Your task to perform on an android device: uninstall "Microsoft Excel" Image 0: 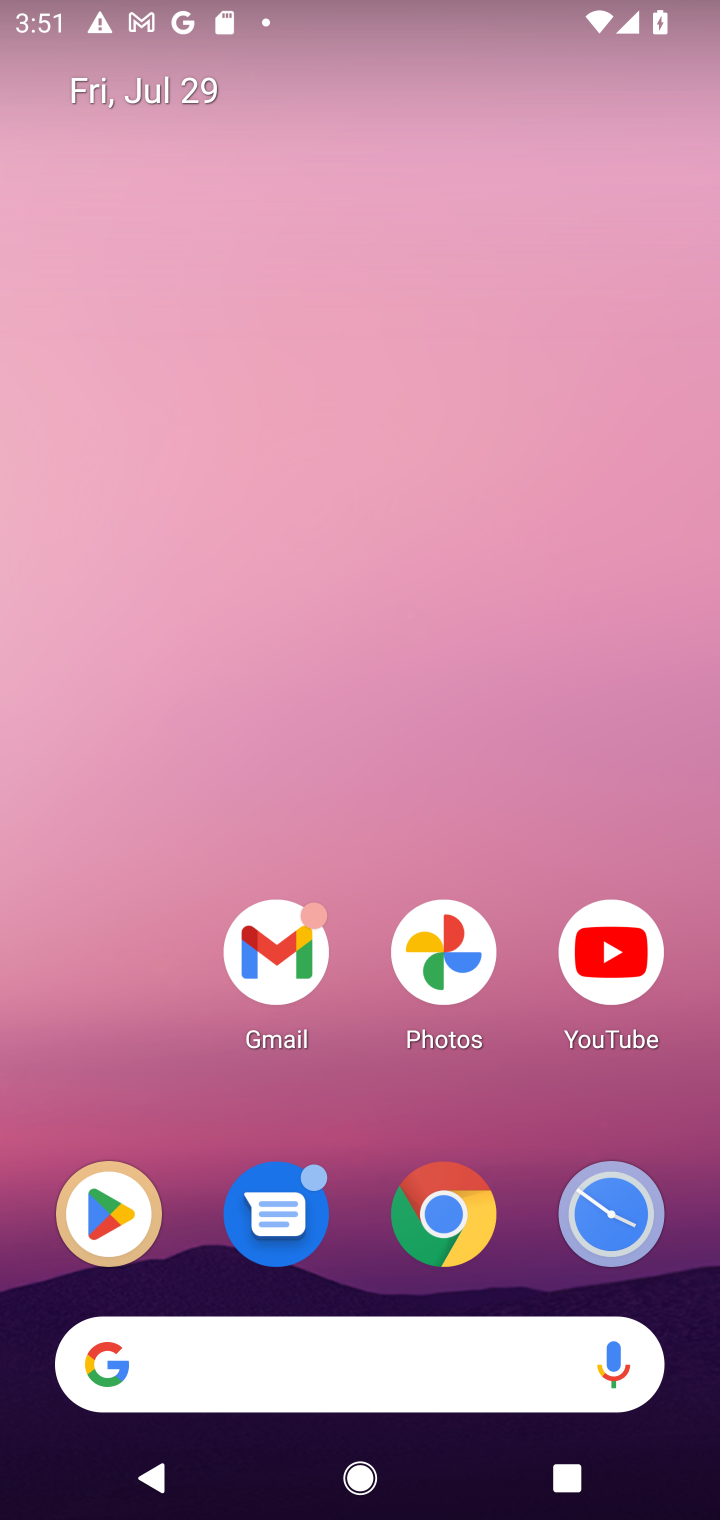
Step 0: click (92, 1217)
Your task to perform on an android device: uninstall "Microsoft Excel" Image 1: 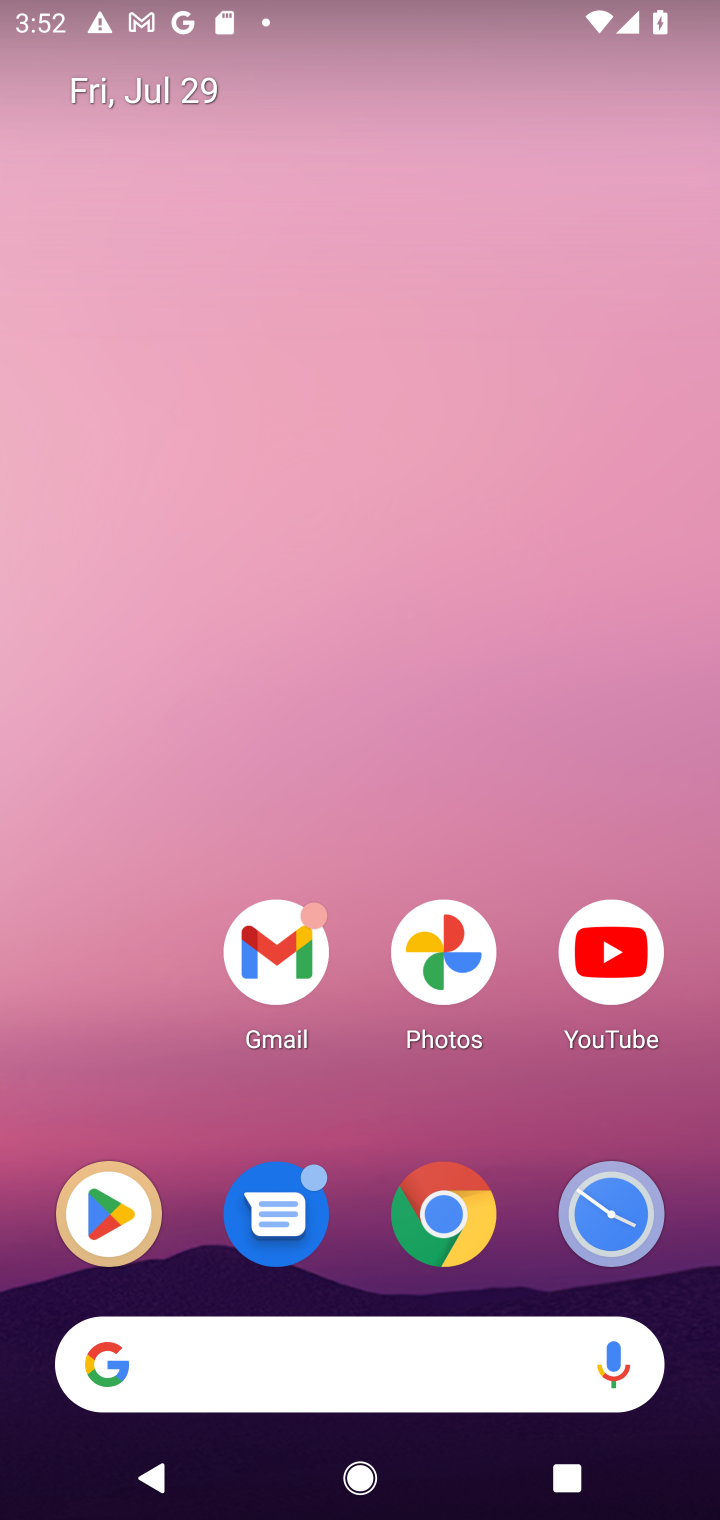
Step 1: click (118, 1200)
Your task to perform on an android device: uninstall "Microsoft Excel" Image 2: 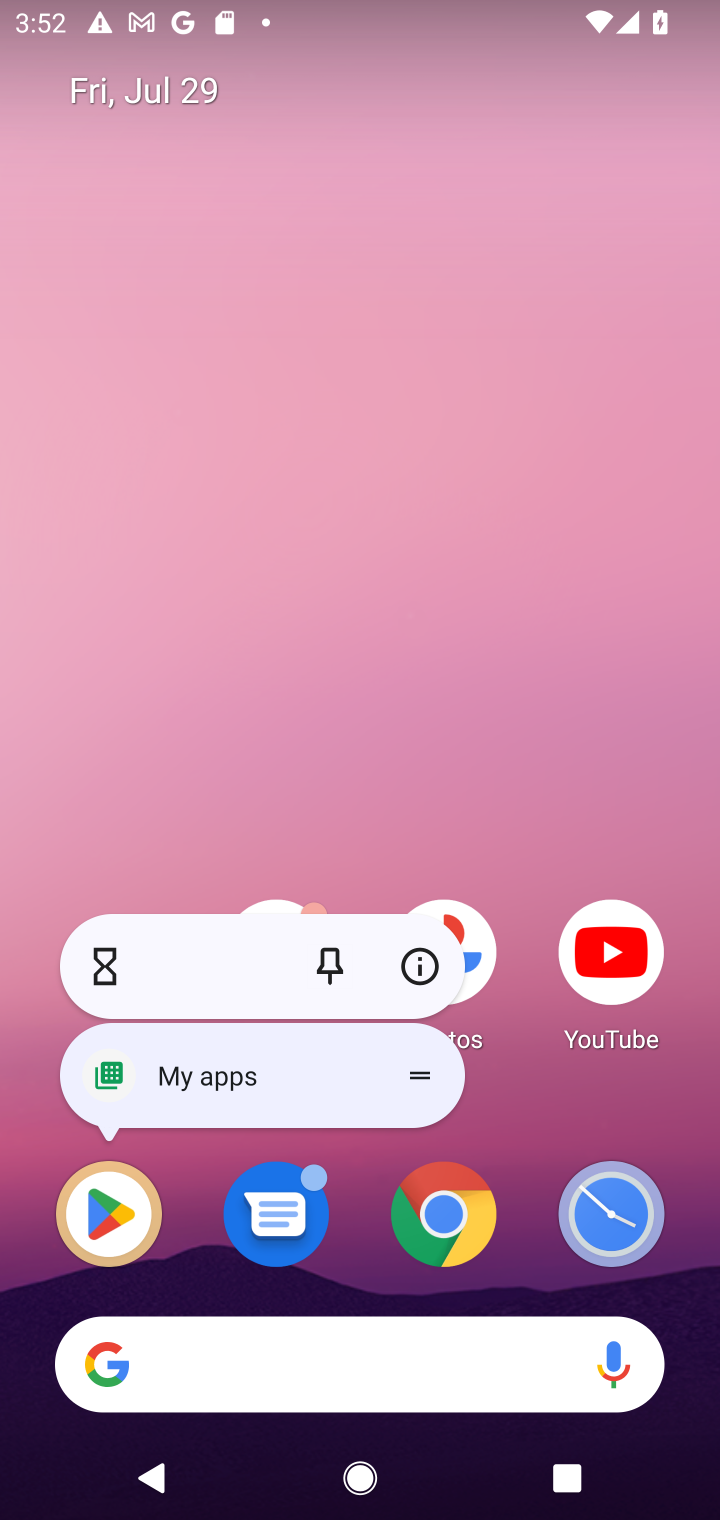
Step 2: click (133, 1214)
Your task to perform on an android device: uninstall "Microsoft Excel" Image 3: 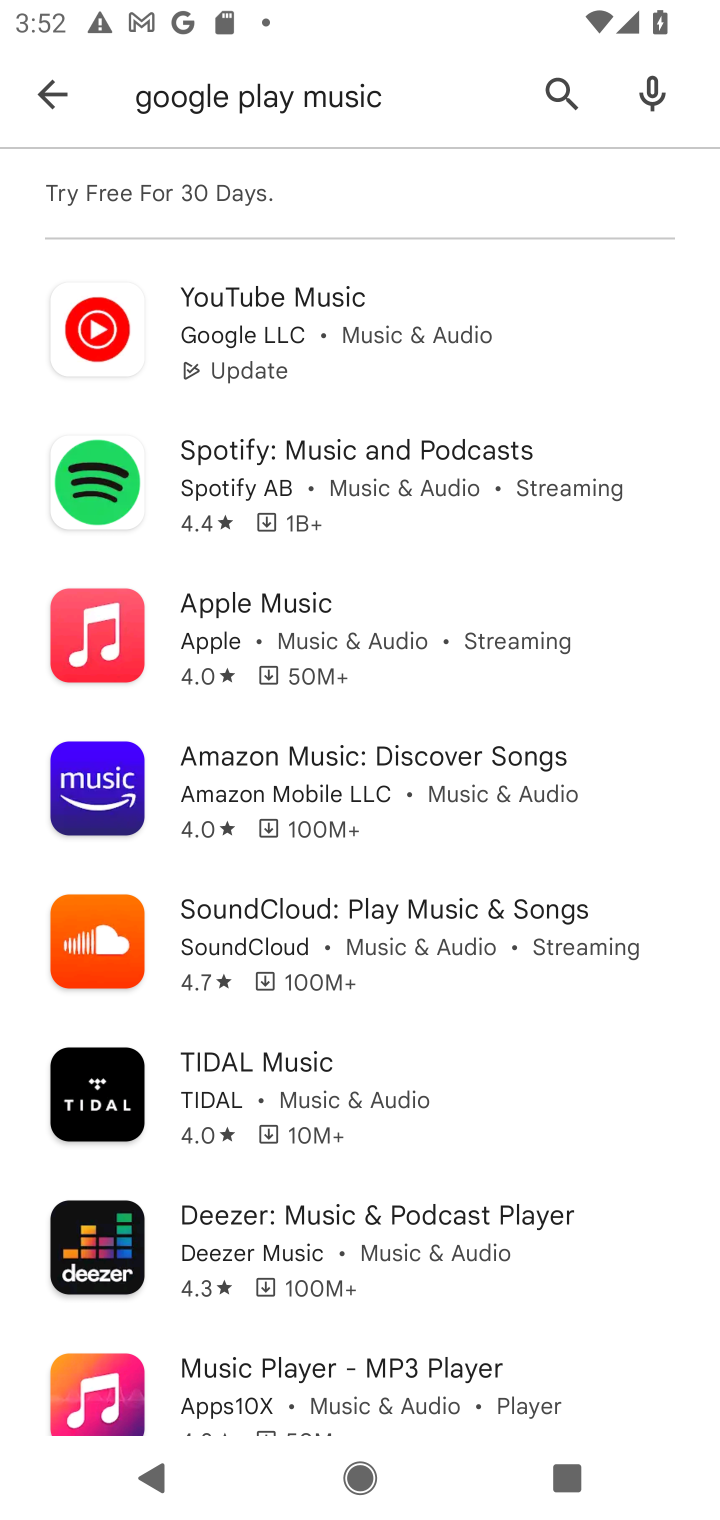
Step 3: click (335, 104)
Your task to perform on an android device: uninstall "Microsoft Excel" Image 4: 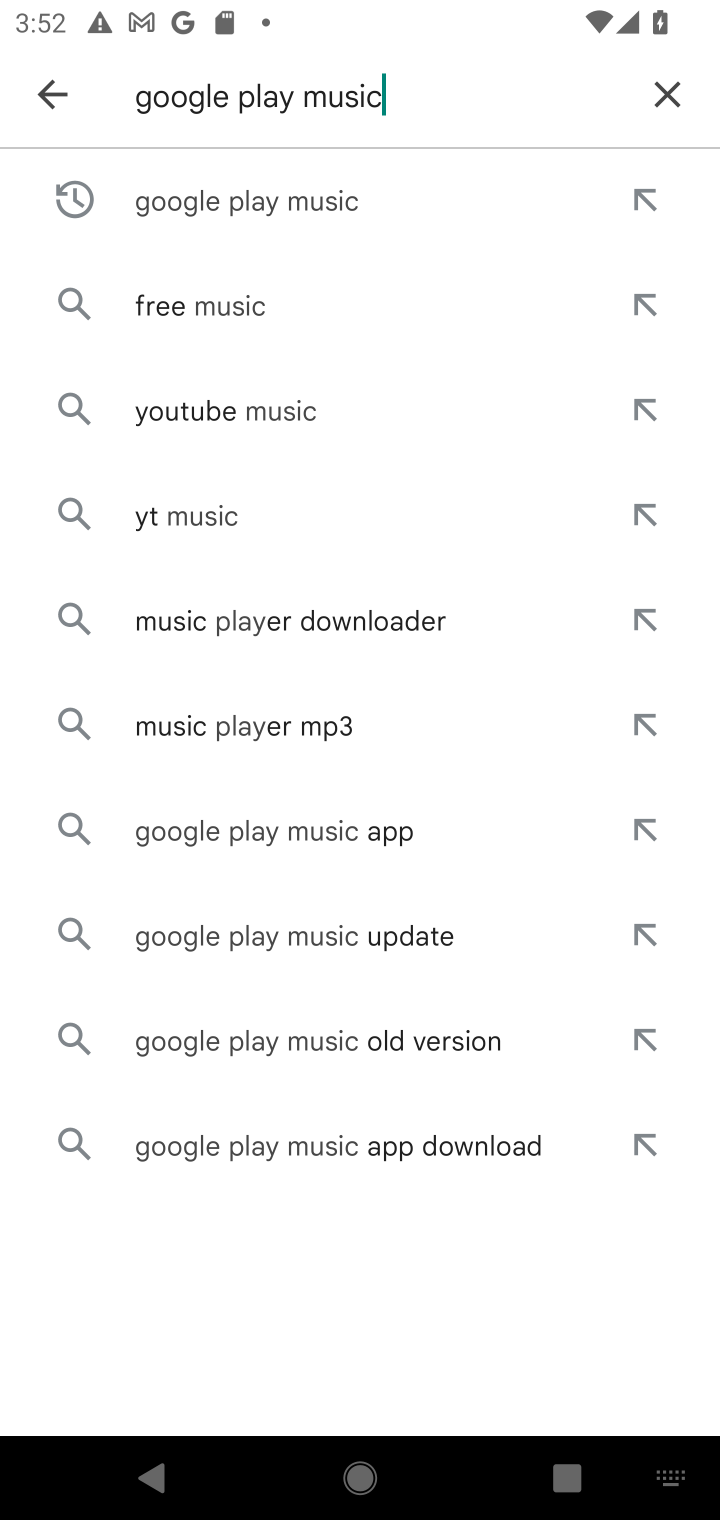
Step 4: click (668, 93)
Your task to perform on an android device: uninstall "Microsoft Excel" Image 5: 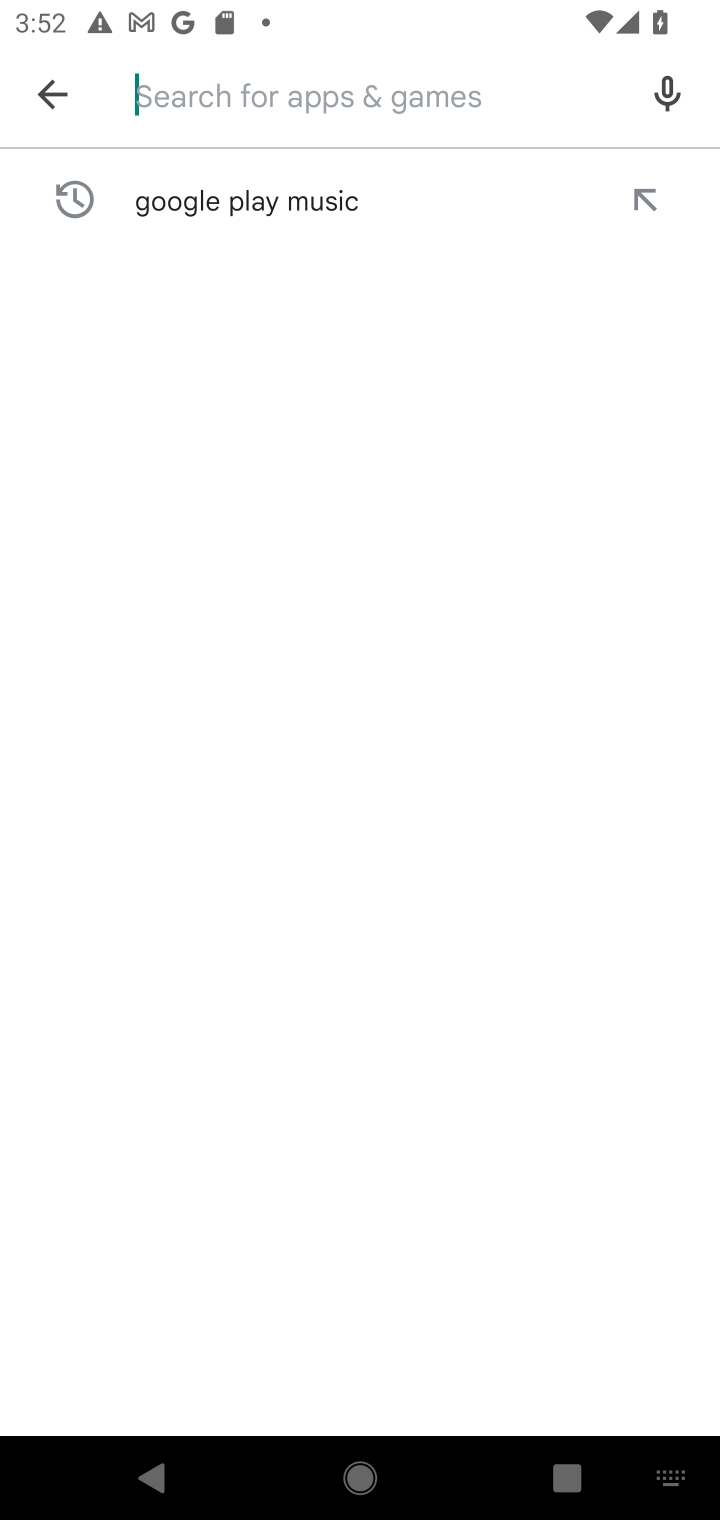
Step 5: type "Microsoft Excel"
Your task to perform on an android device: uninstall "Microsoft Excel" Image 6: 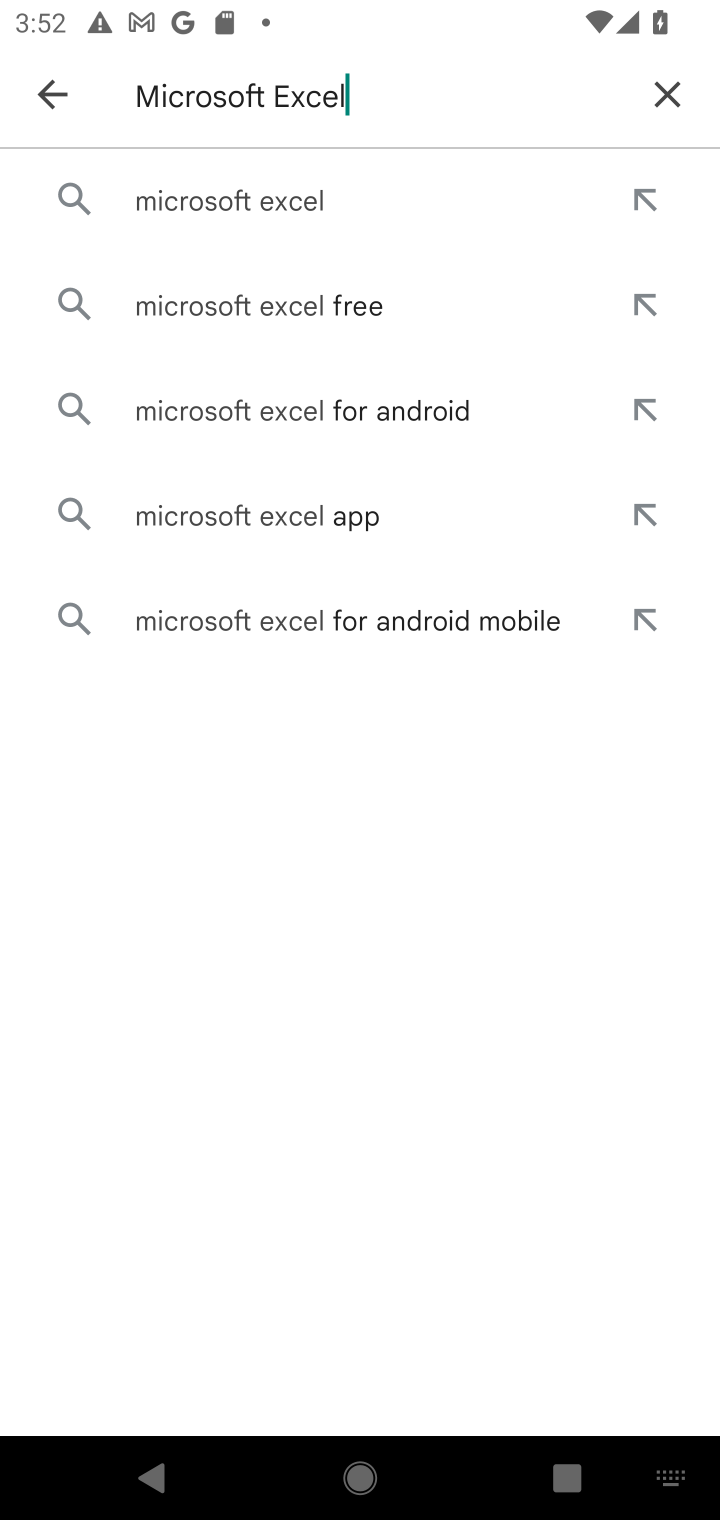
Step 6: click (316, 215)
Your task to perform on an android device: uninstall "Microsoft Excel" Image 7: 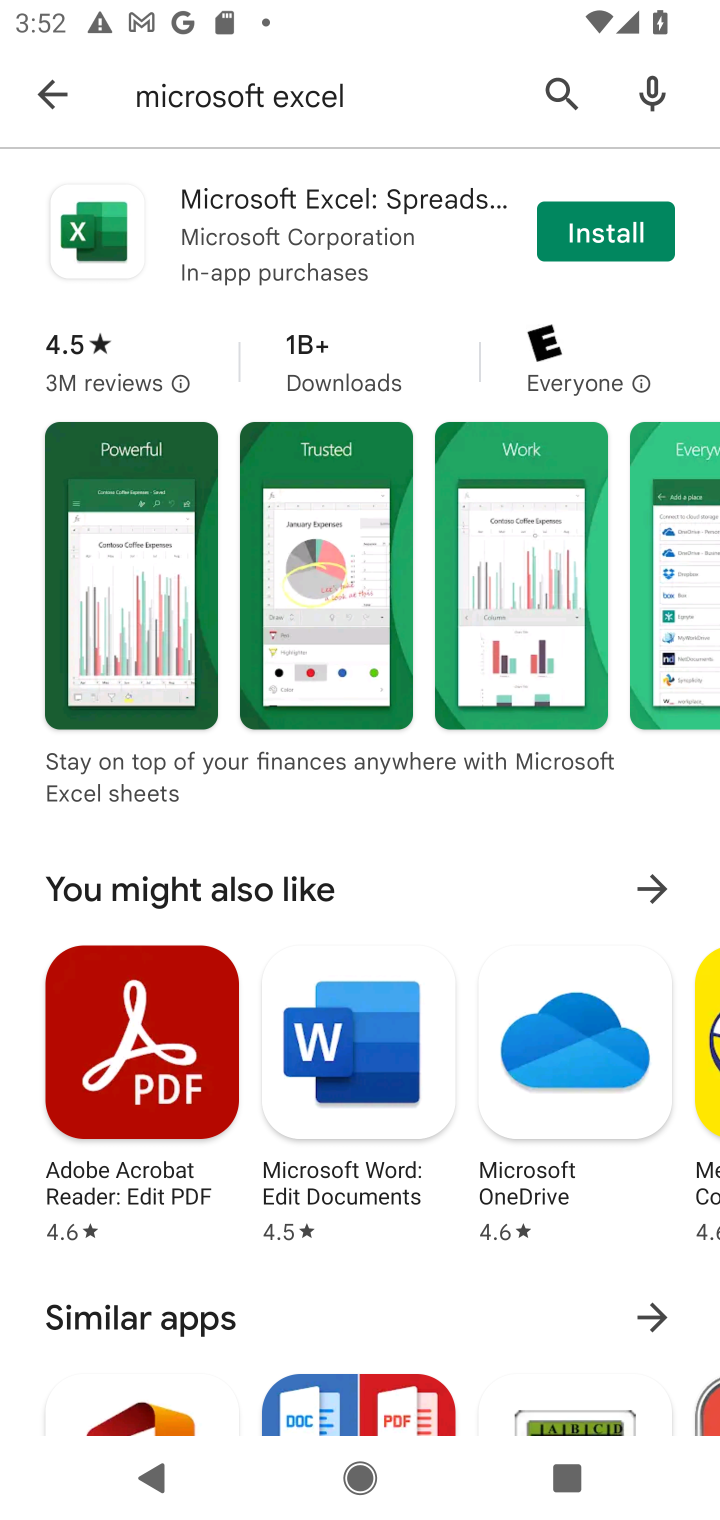
Step 7: task complete